Your task to perform on an android device: Go to display settings Image 0: 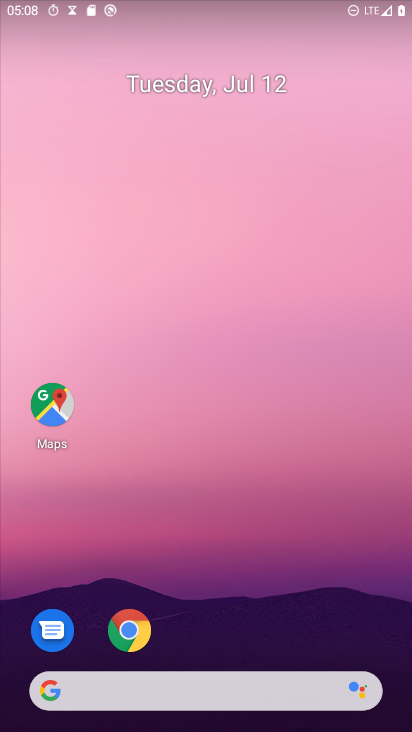
Step 0: drag from (298, 683) to (411, 100)
Your task to perform on an android device: Go to display settings Image 1: 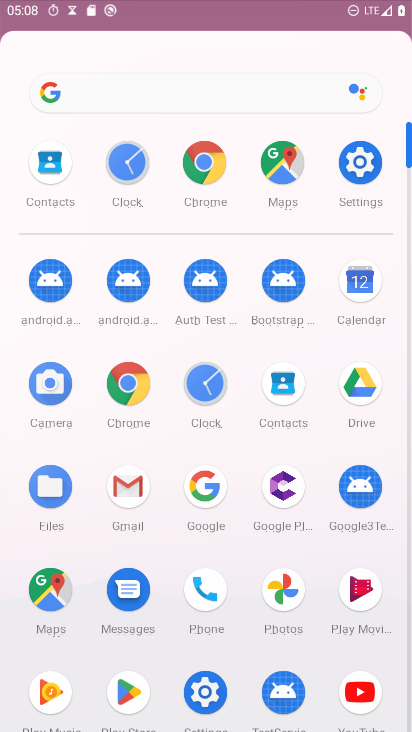
Step 1: click (373, 118)
Your task to perform on an android device: Go to display settings Image 2: 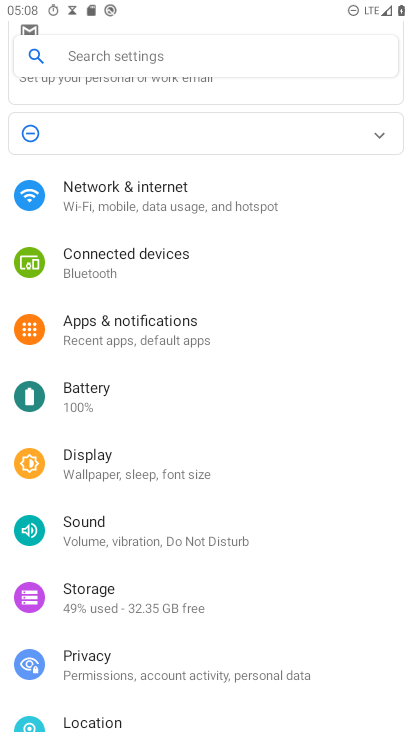
Step 2: click (114, 465)
Your task to perform on an android device: Go to display settings Image 3: 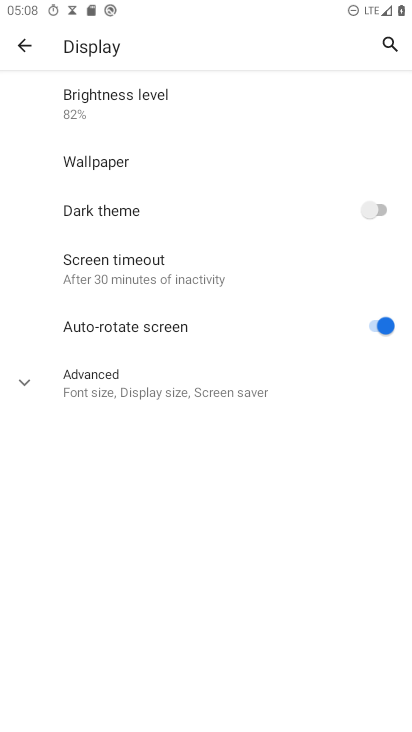
Step 3: task complete